Your task to perform on an android device: Go to Google maps Image 0: 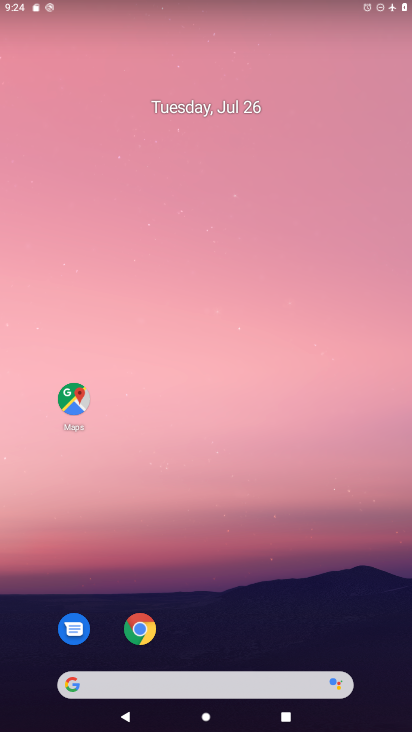
Step 0: click (72, 379)
Your task to perform on an android device: Go to Google maps Image 1: 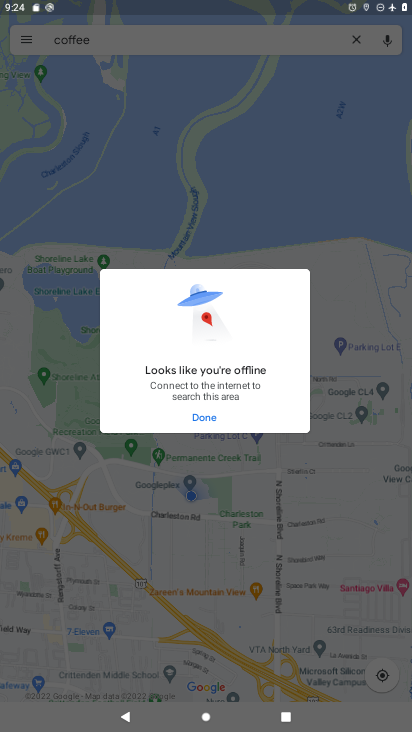
Step 1: click (199, 409)
Your task to perform on an android device: Go to Google maps Image 2: 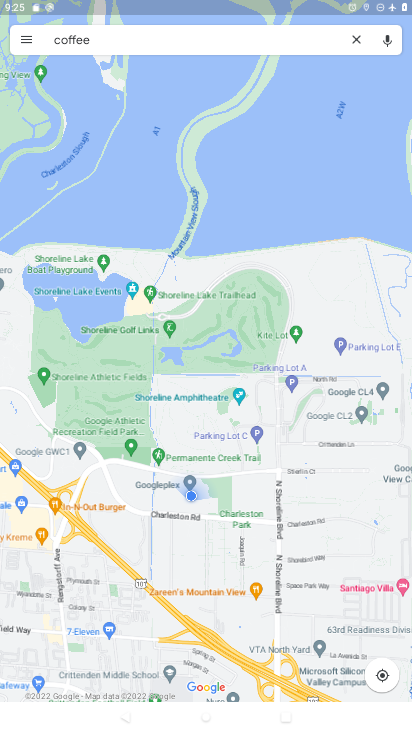
Step 2: task complete